Your task to perform on an android device: Open display settings Image 0: 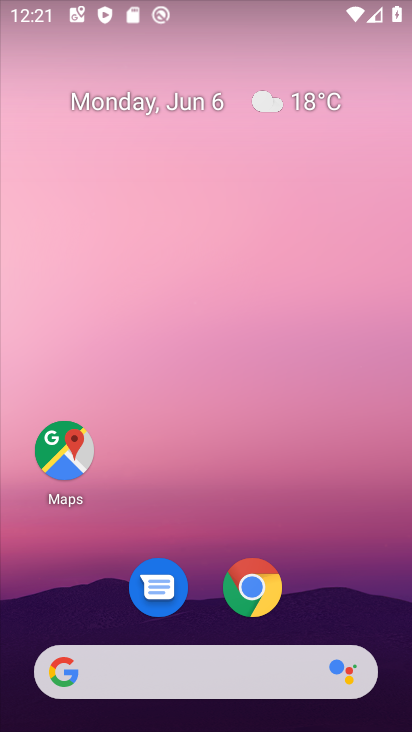
Step 0: drag from (373, 560) to (375, 62)
Your task to perform on an android device: Open display settings Image 1: 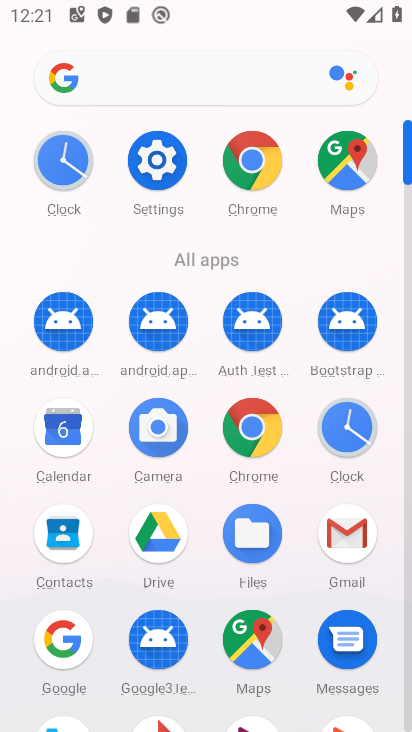
Step 1: click (181, 174)
Your task to perform on an android device: Open display settings Image 2: 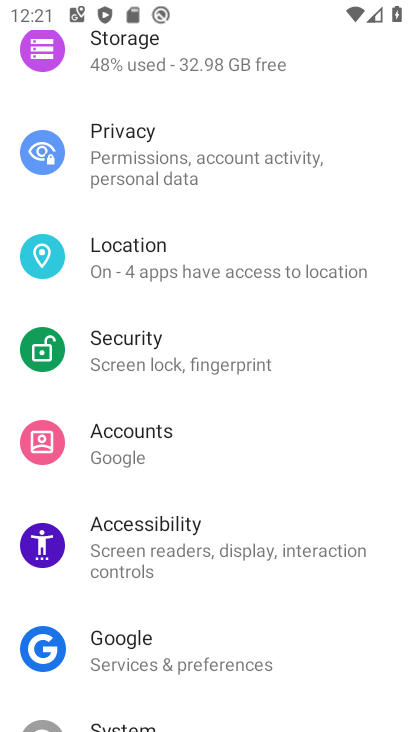
Step 2: drag from (247, 145) to (272, 602)
Your task to perform on an android device: Open display settings Image 3: 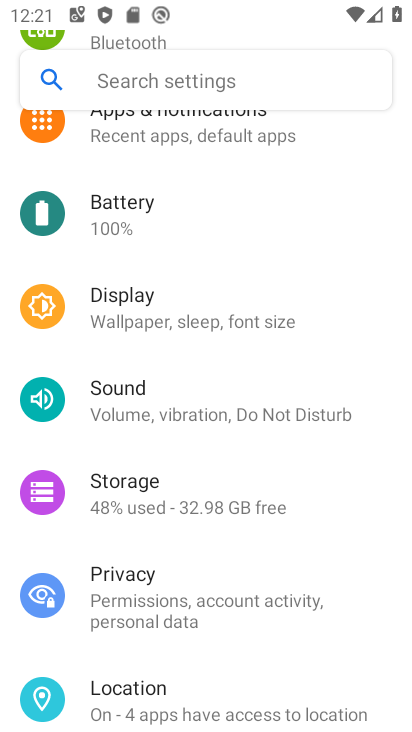
Step 3: drag from (285, 255) to (308, 552)
Your task to perform on an android device: Open display settings Image 4: 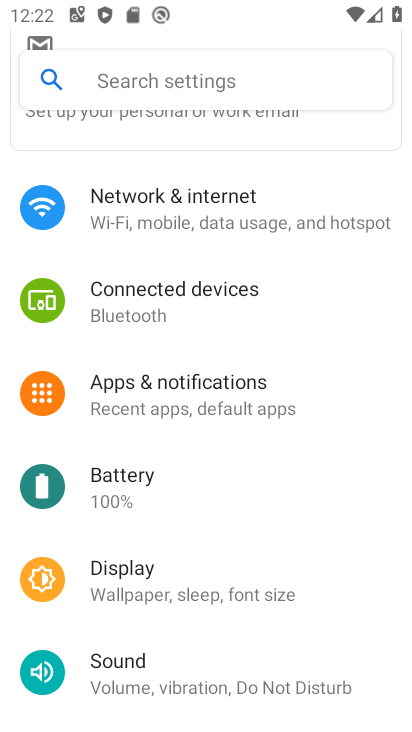
Step 4: drag from (319, 628) to (354, 401)
Your task to perform on an android device: Open display settings Image 5: 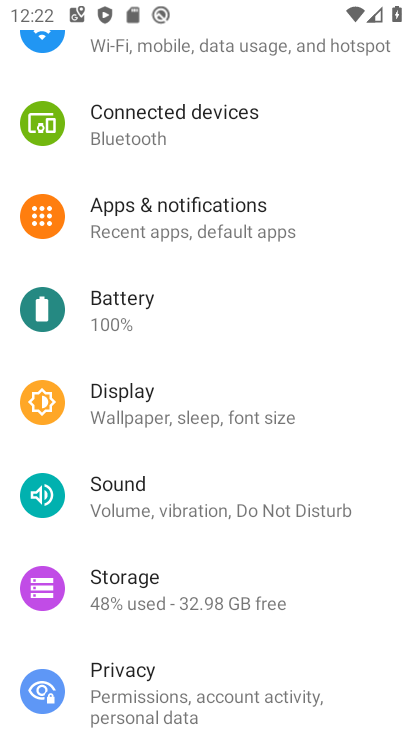
Step 5: click (215, 423)
Your task to perform on an android device: Open display settings Image 6: 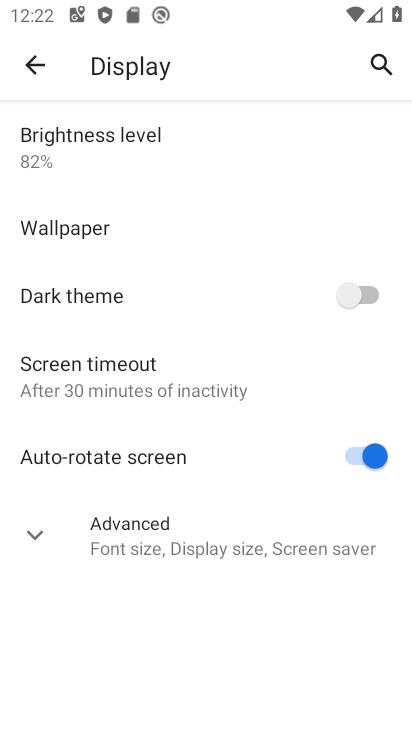
Step 6: task complete